Your task to perform on an android device: open device folders in google photos Image 0: 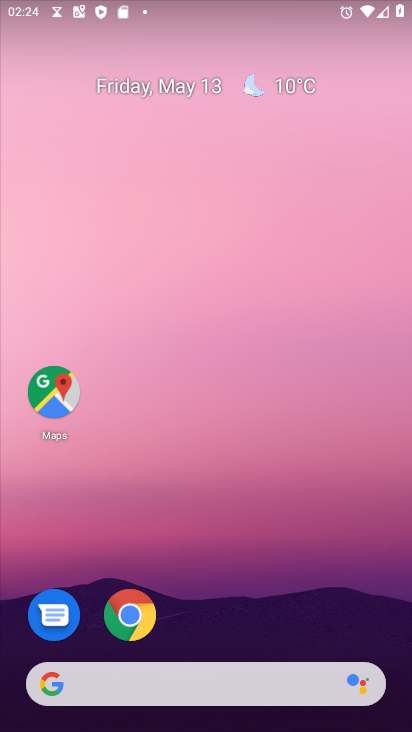
Step 0: drag from (227, 652) to (134, 206)
Your task to perform on an android device: open device folders in google photos Image 1: 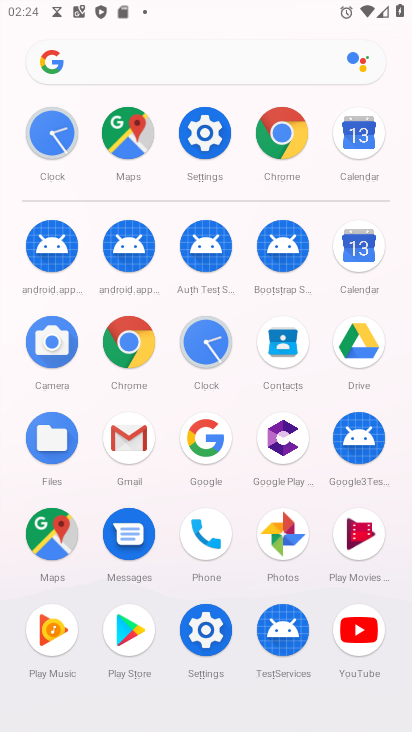
Step 1: click (282, 521)
Your task to perform on an android device: open device folders in google photos Image 2: 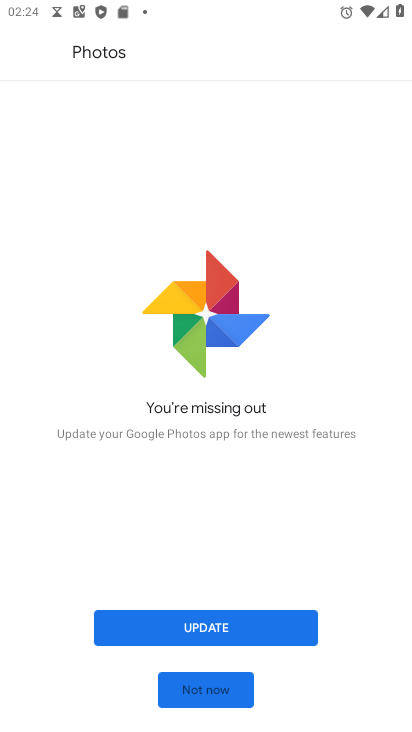
Step 2: click (217, 683)
Your task to perform on an android device: open device folders in google photos Image 3: 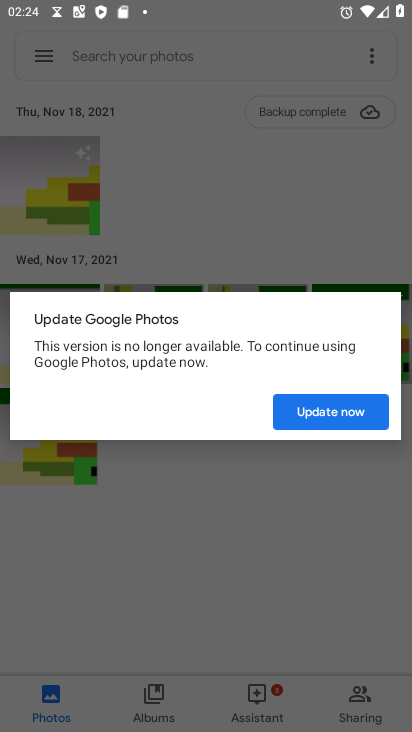
Step 3: click (297, 420)
Your task to perform on an android device: open device folders in google photos Image 4: 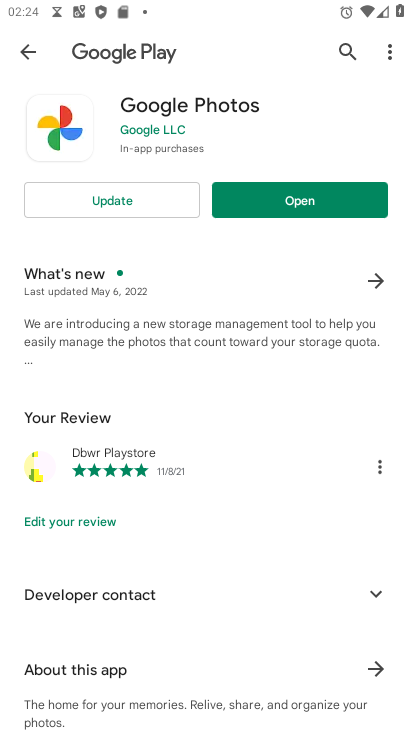
Step 4: press back button
Your task to perform on an android device: open device folders in google photos Image 5: 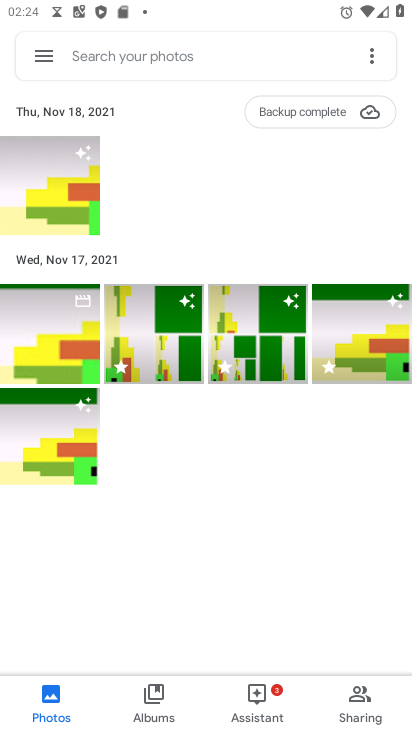
Step 5: click (36, 58)
Your task to perform on an android device: open device folders in google photos Image 6: 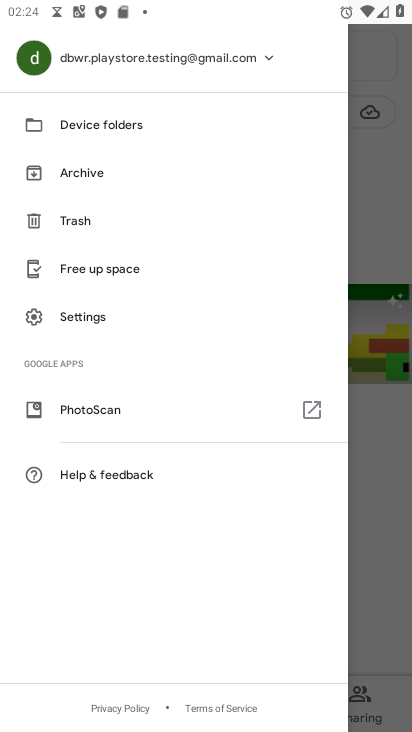
Step 6: click (93, 116)
Your task to perform on an android device: open device folders in google photos Image 7: 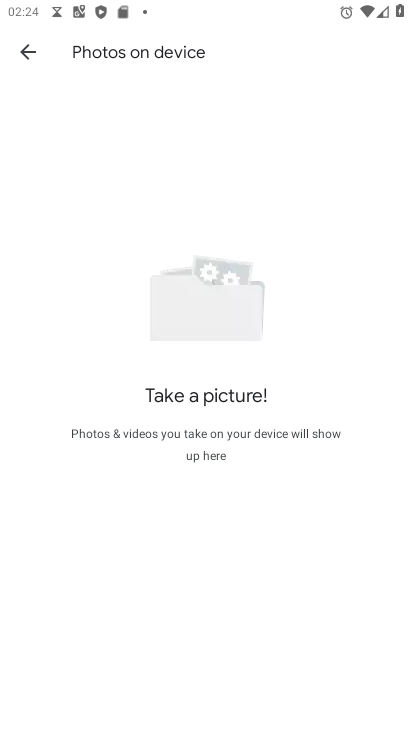
Step 7: task complete